Your task to perform on an android device: open a bookmark in the chrome app Image 0: 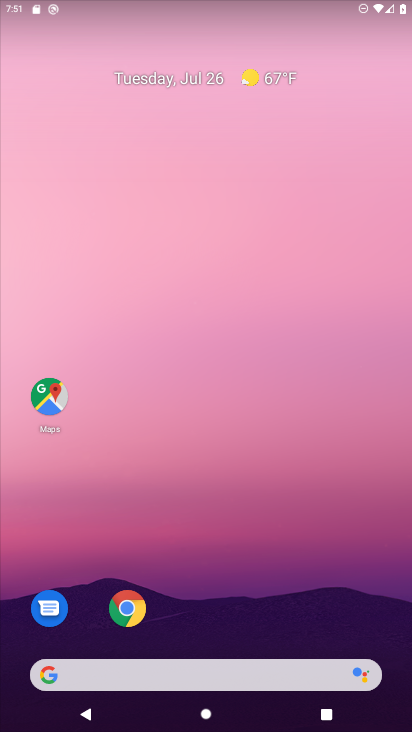
Step 0: click (137, 619)
Your task to perform on an android device: open a bookmark in the chrome app Image 1: 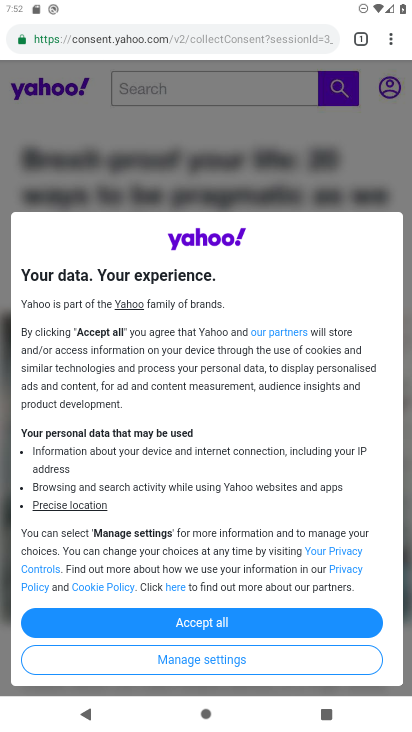
Step 1: click (384, 39)
Your task to perform on an android device: open a bookmark in the chrome app Image 2: 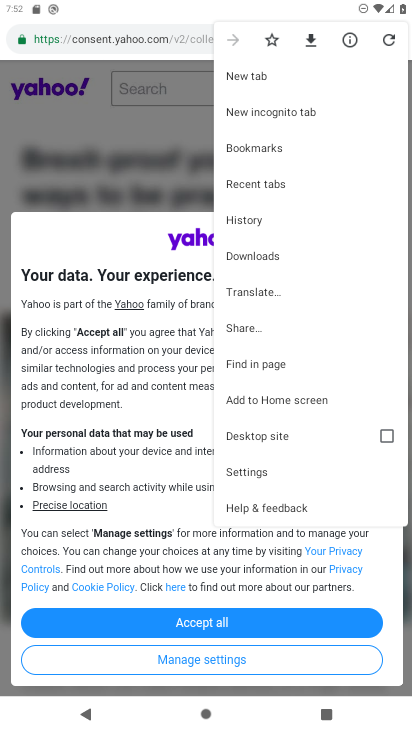
Step 2: click (265, 152)
Your task to perform on an android device: open a bookmark in the chrome app Image 3: 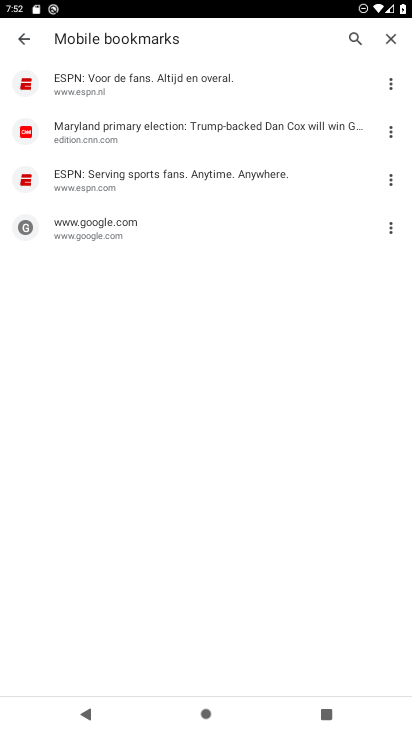
Step 3: click (130, 124)
Your task to perform on an android device: open a bookmark in the chrome app Image 4: 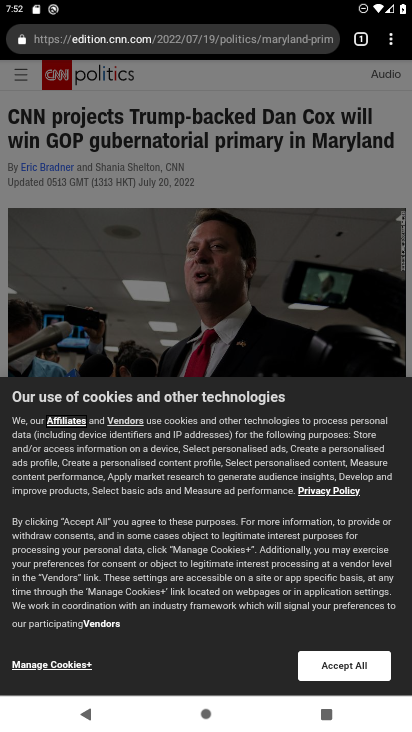
Step 4: task complete